Your task to perform on an android device: open device folders in google photos Image 0: 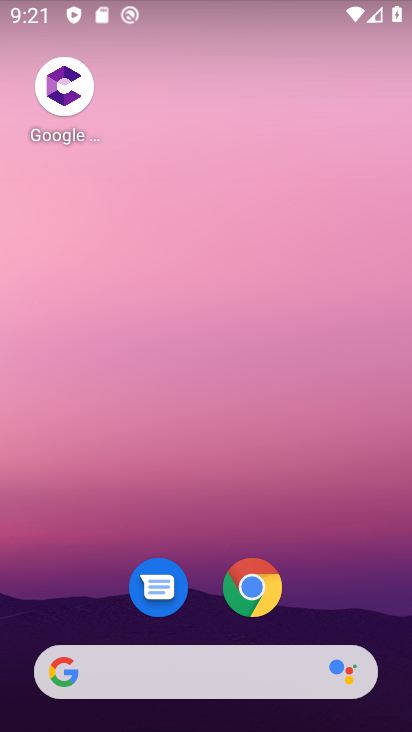
Step 0: click (387, 124)
Your task to perform on an android device: open device folders in google photos Image 1: 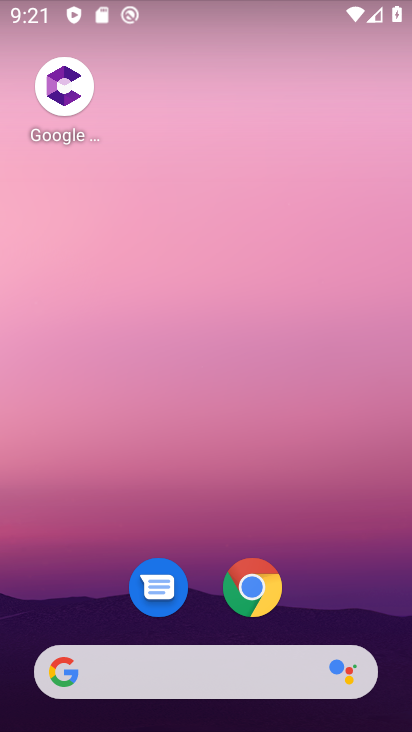
Step 1: drag from (356, 609) to (263, 170)
Your task to perform on an android device: open device folders in google photos Image 2: 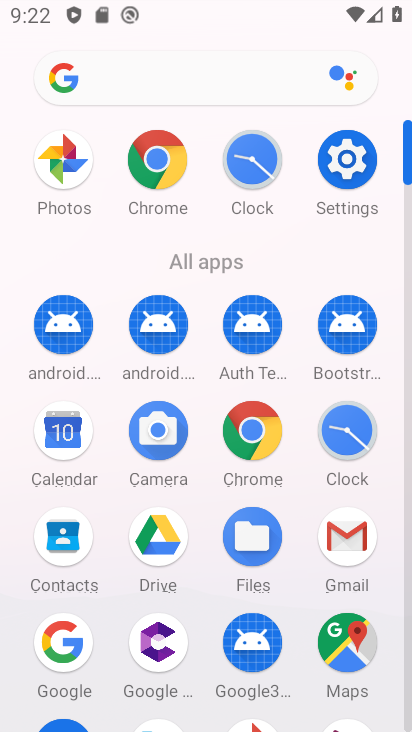
Step 2: drag from (191, 655) to (204, 213)
Your task to perform on an android device: open device folders in google photos Image 3: 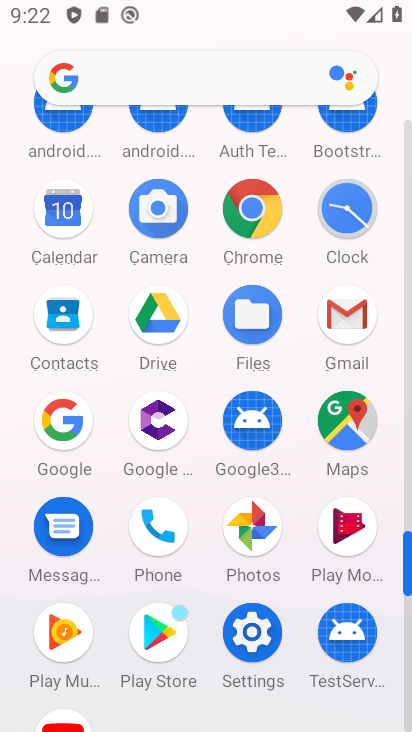
Step 3: click (247, 548)
Your task to perform on an android device: open device folders in google photos Image 4: 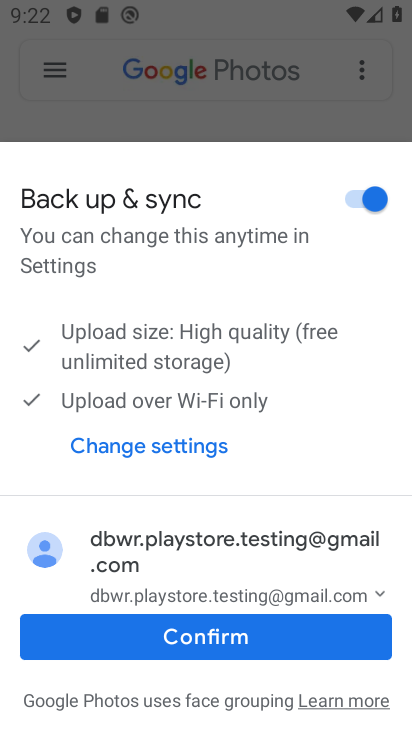
Step 4: click (171, 635)
Your task to perform on an android device: open device folders in google photos Image 5: 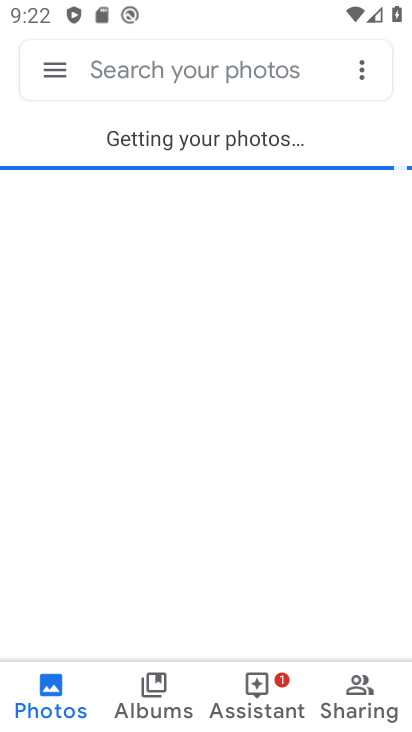
Step 5: click (40, 62)
Your task to perform on an android device: open device folders in google photos Image 6: 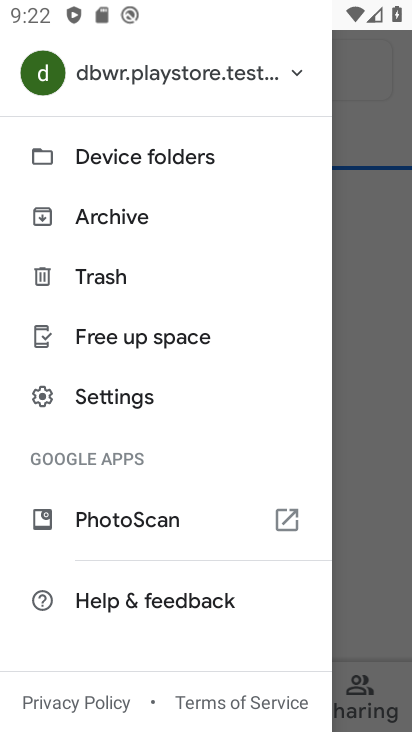
Step 6: click (113, 154)
Your task to perform on an android device: open device folders in google photos Image 7: 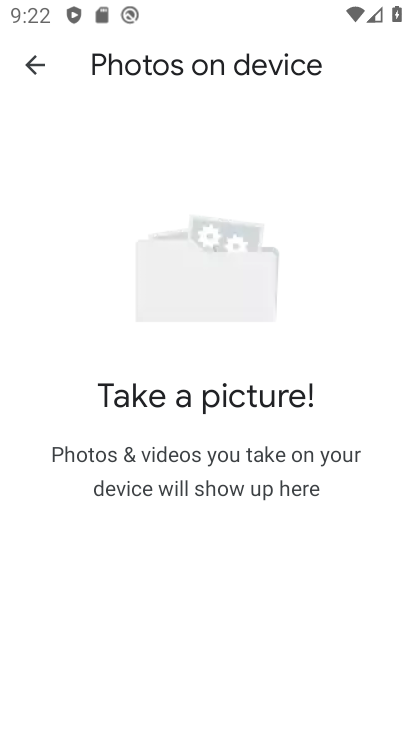
Step 7: task complete